Your task to perform on an android device: turn on location history Image 0: 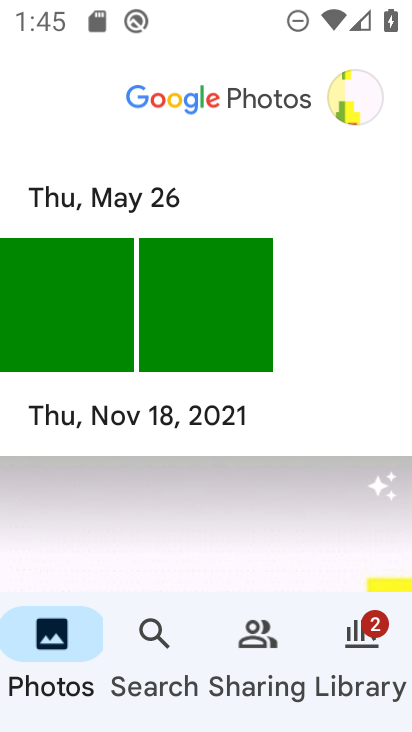
Step 0: press home button
Your task to perform on an android device: turn on location history Image 1: 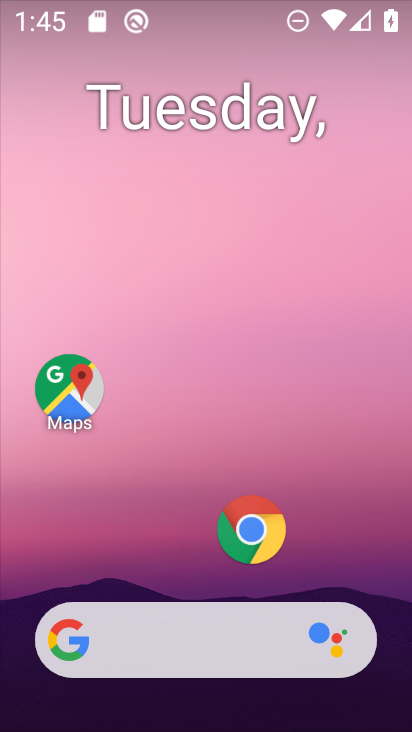
Step 1: drag from (227, 649) to (379, 48)
Your task to perform on an android device: turn on location history Image 2: 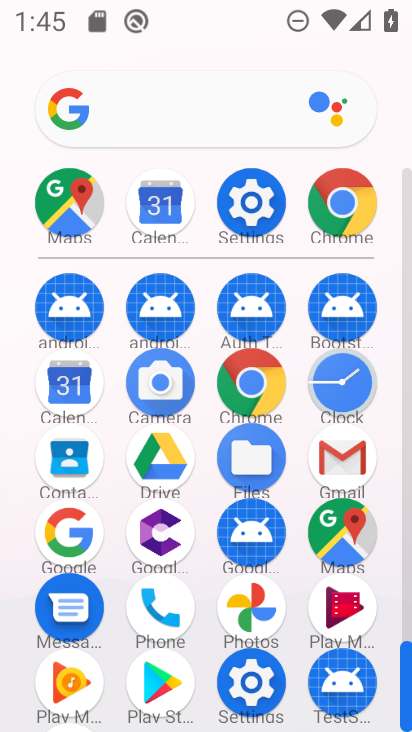
Step 2: click (268, 204)
Your task to perform on an android device: turn on location history Image 3: 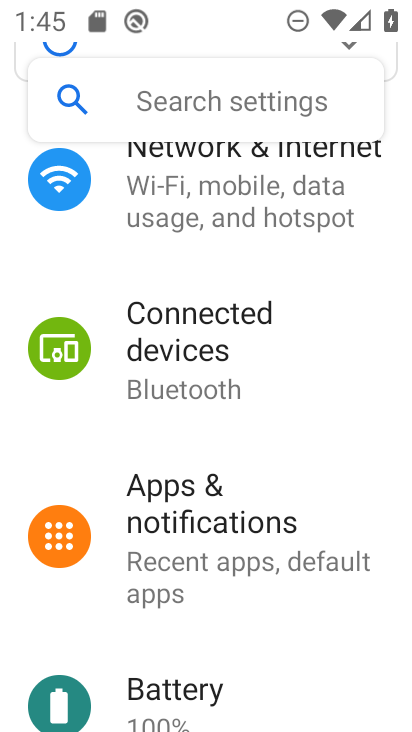
Step 3: click (203, 96)
Your task to perform on an android device: turn on location history Image 4: 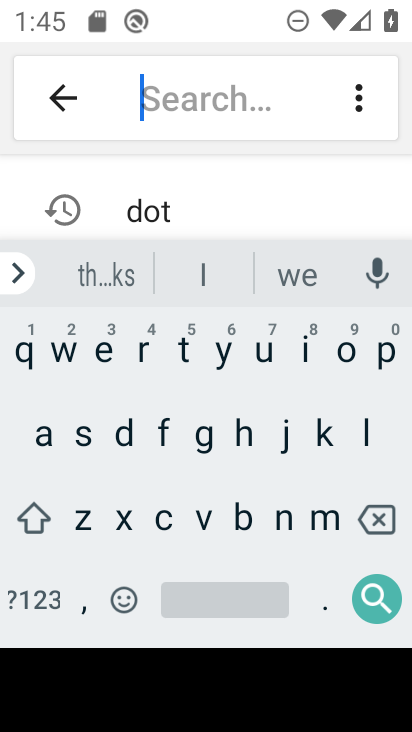
Step 4: click (369, 430)
Your task to perform on an android device: turn on location history Image 5: 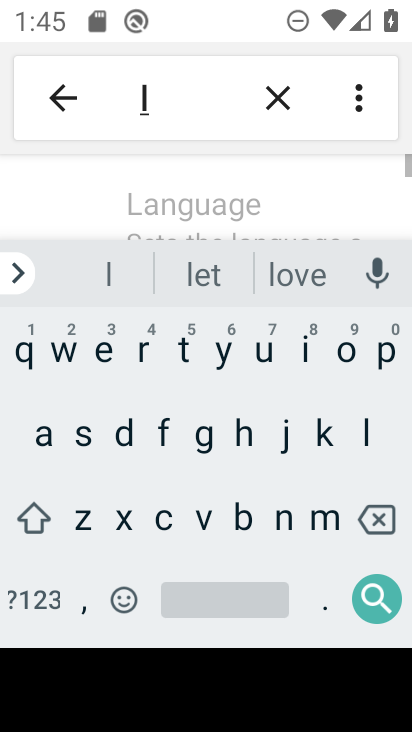
Step 5: click (350, 346)
Your task to perform on an android device: turn on location history Image 6: 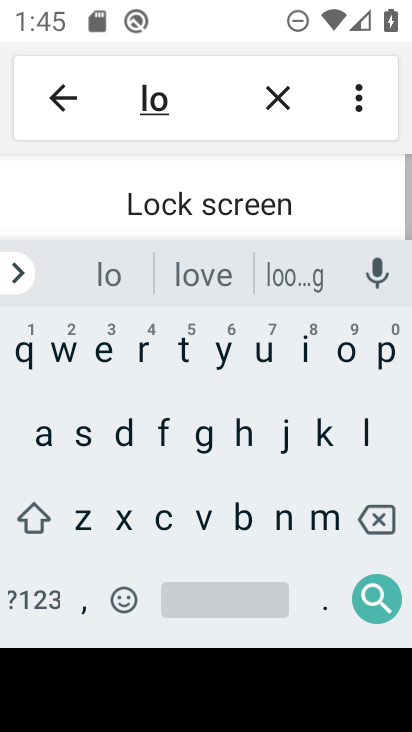
Step 6: press back button
Your task to perform on an android device: turn on location history Image 7: 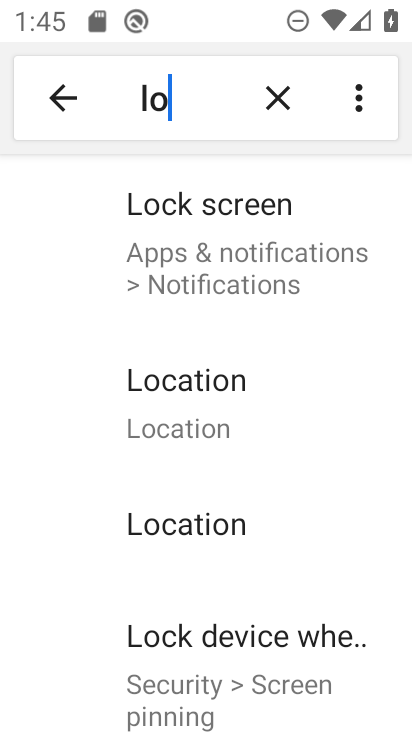
Step 7: click (208, 393)
Your task to perform on an android device: turn on location history Image 8: 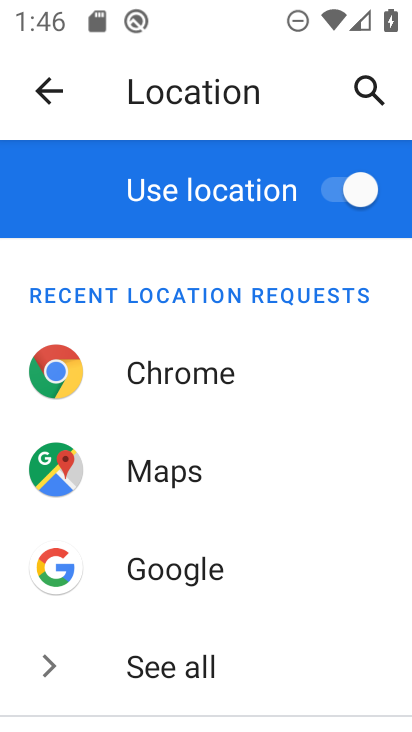
Step 8: drag from (238, 619) to (323, 262)
Your task to perform on an android device: turn on location history Image 9: 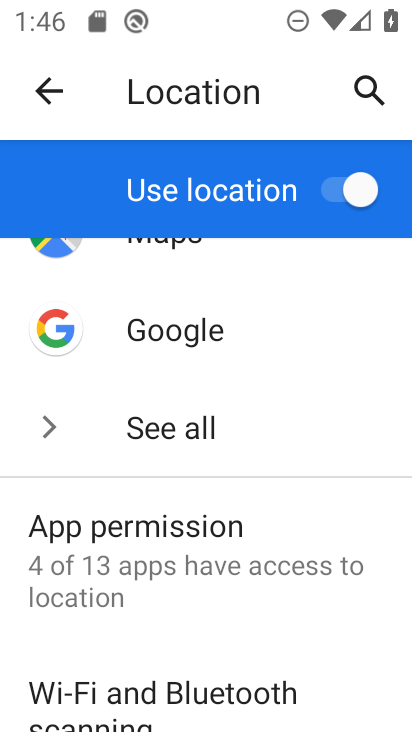
Step 9: drag from (211, 667) to (260, 43)
Your task to perform on an android device: turn on location history Image 10: 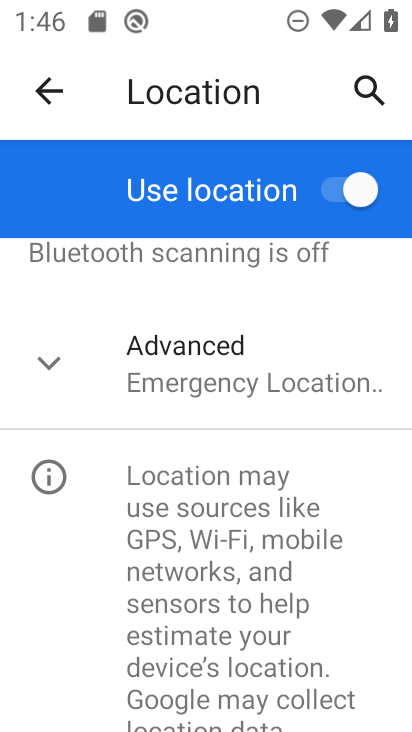
Step 10: click (132, 391)
Your task to perform on an android device: turn on location history Image 11: 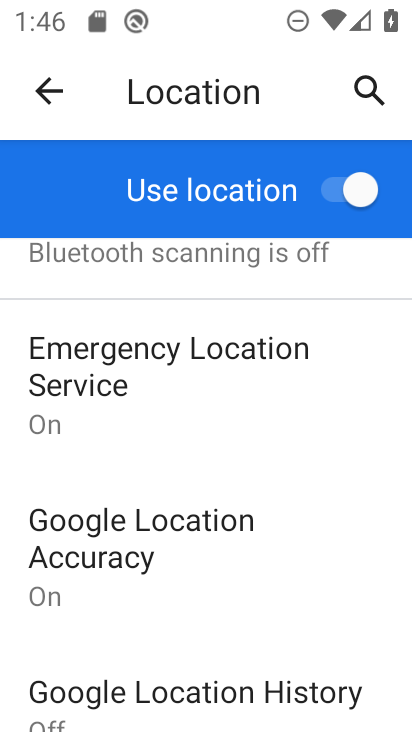
Step 11: click (182, 678)
Your task to perform on an android device: turn on location history Image 12: 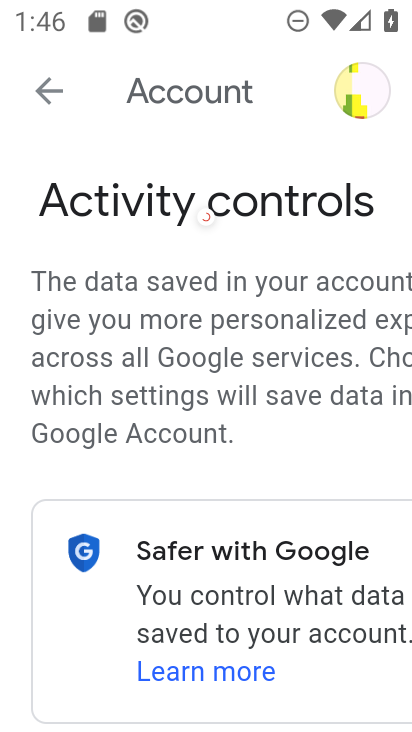
Step 12: task complete